Your task to perform on an android device: change timer sound Image 0: 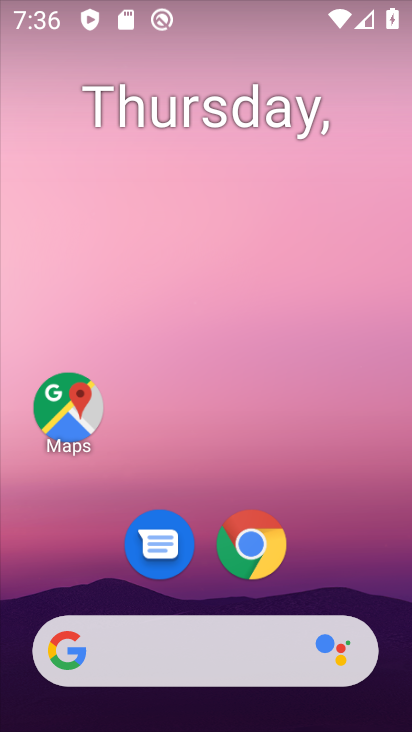
Step 0: drag from (338, 545) to (233, 54)
Your task to perform on an android device: change timer sound Image 1: 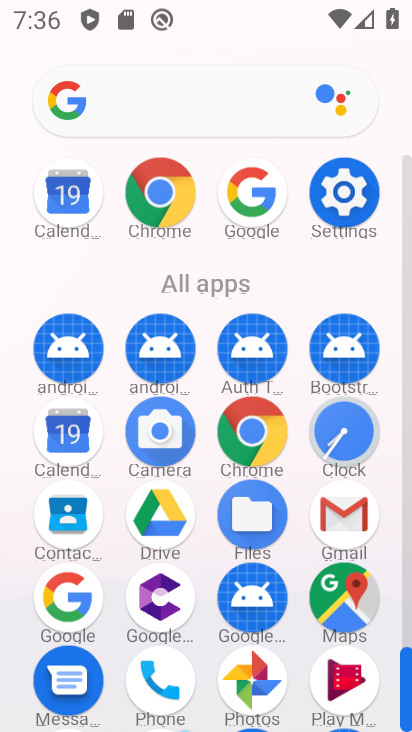
Step 1: click (349, 429)
Your task to perform on an android device: change timer sound Image 2: 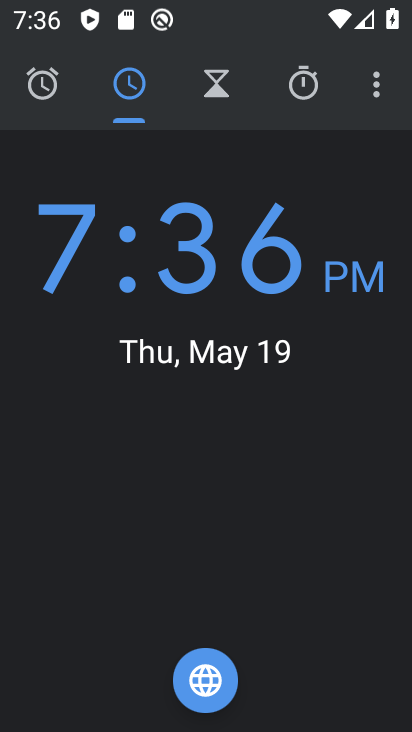
Step 2: click (381, 84)
Your task to perform on an android device: change timer sound Image 3: 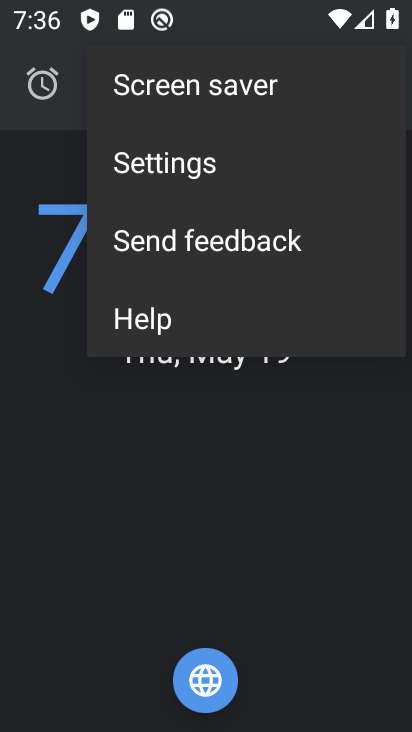
Step 3: click (170, 169)
Your task to perform on an android device: change timer sound Image 4: 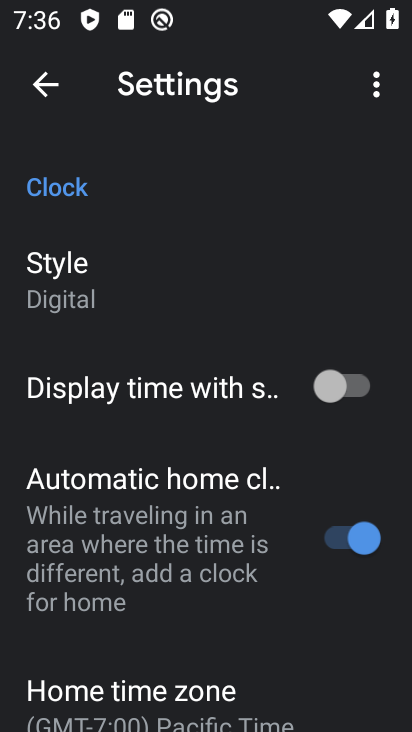
Step 4: drag from (206, 586) to (219, 498)
Your task to perform on an android device: change timer sound Image 5: 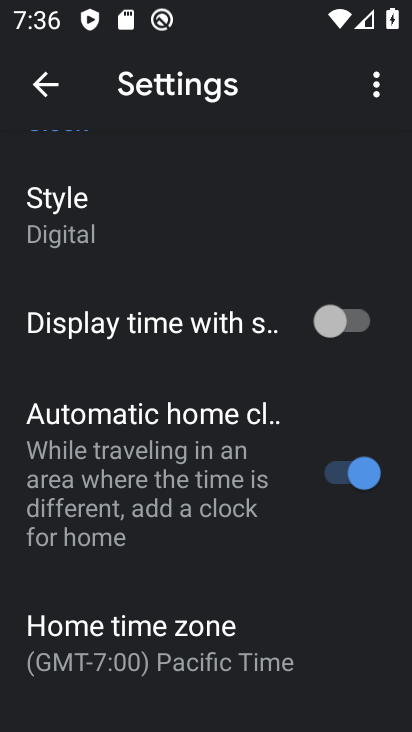
Step 5: drag from (211, 567) to (232, 478)
Your task to perform on an android device: change timer sound Image 6: 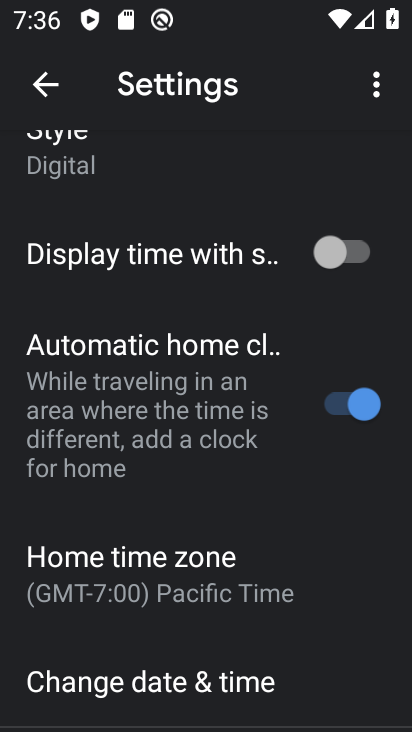
Step 6: drag from (166, 610) to (191, 518)
Your task to perform on an android device: change timer sound Image 7: 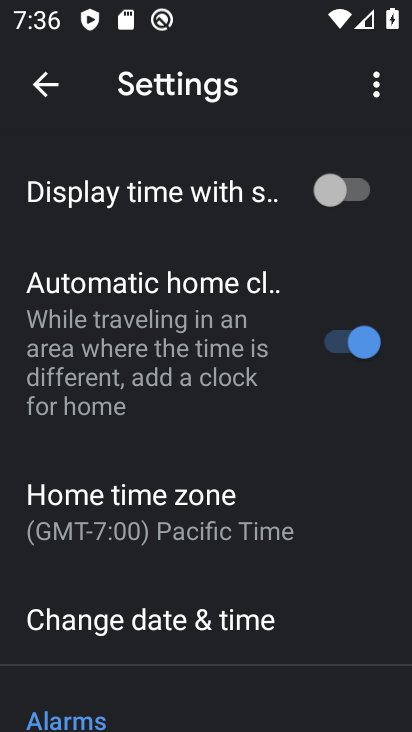
Step 7: drag from (149, 671) to (183, 552)
Your task to perform on an android device: change timer sound Image 8: 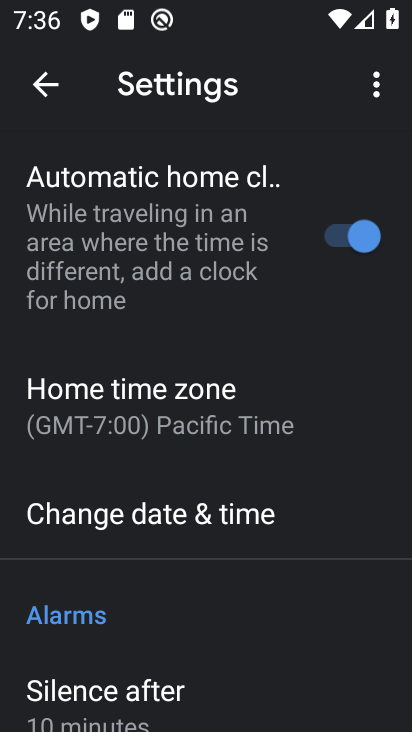
Step 8: drag from (168, 618) to (201, 485)
Your task to perform on an android device: change timer sound Image 9: 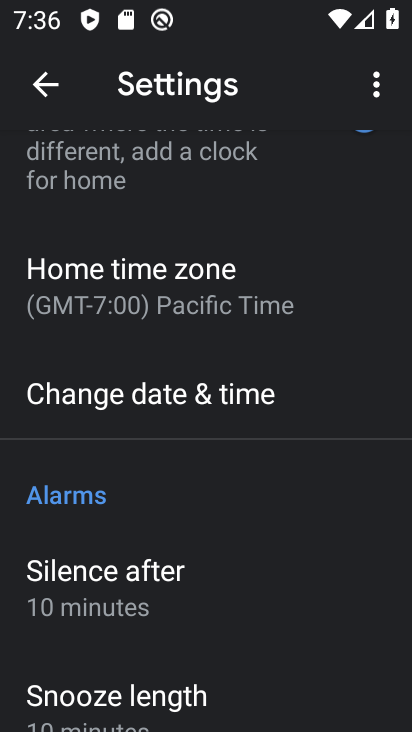
Step 9: drag from (176, 626) to (214, 512)
Your task to perform on an android device: change timer sound Image 10: 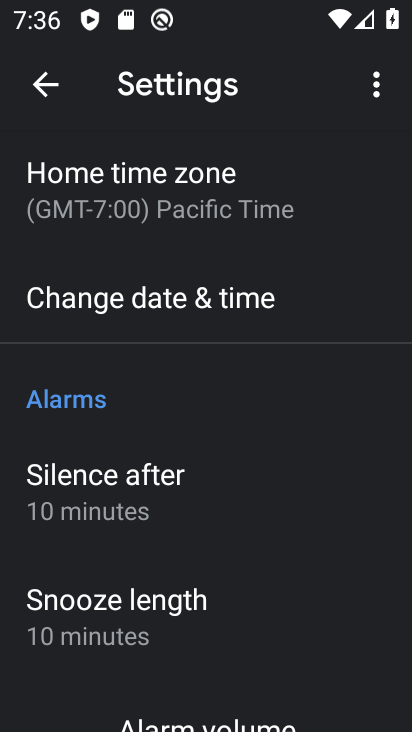
Step 10: drag from (179, 656) to (221, 503)
Your task to perform on an android device: change timer sound Image 11: 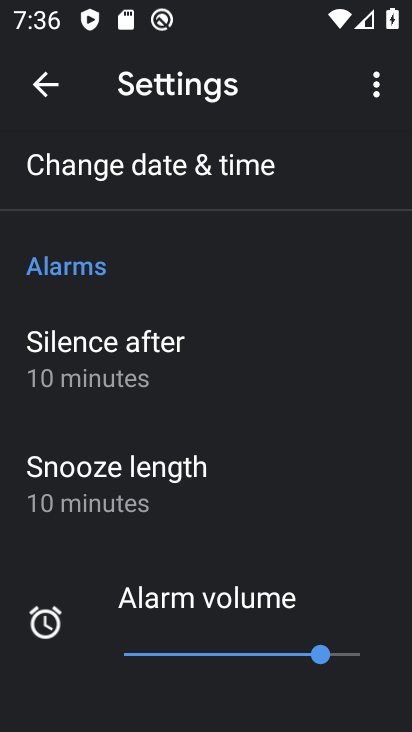
Step 11: drag from (89, 672) to (190, 499)
Your task to perform on an android device: change timer sound Image 12: 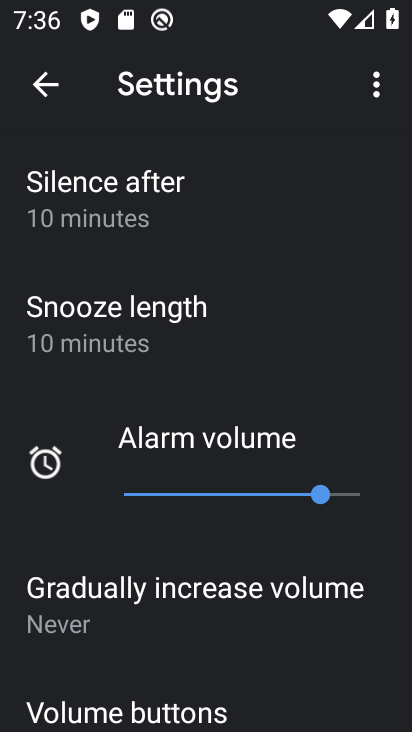
Step 12: drag from (161, 635) to (226, 524)
Your task to perform on an android device: change timer sound Image 13: 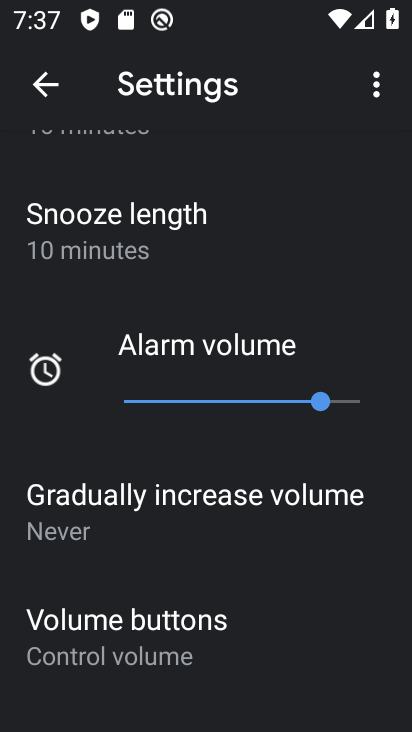
Step 13: drag from (175, 698) to (227, 565)
Your task to perform on an android device: change timer sound Image 14: 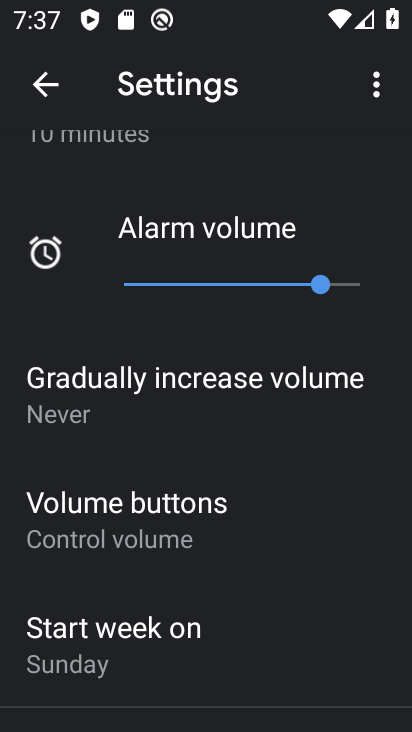
Step 14: drag from (202, 580) to (286, 464)
Your task to perform on an android device: change timer sound Image 15: 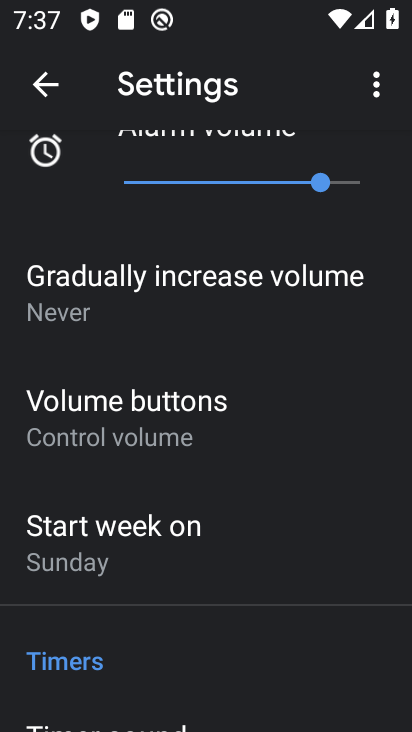
Step 15: drag from (170, 634) to (239, 517)
Your task to perform on an android device: change timer sound Image 16: 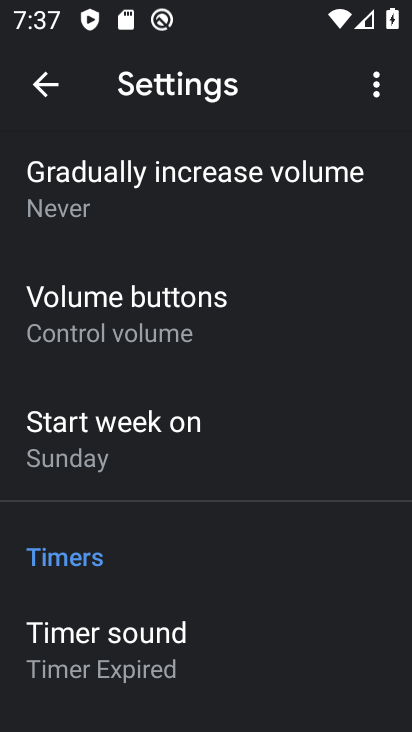
Step 16: drag from (157, 602) to (222, 501)
Your task to perform on an android device: change timer sound Image 17: 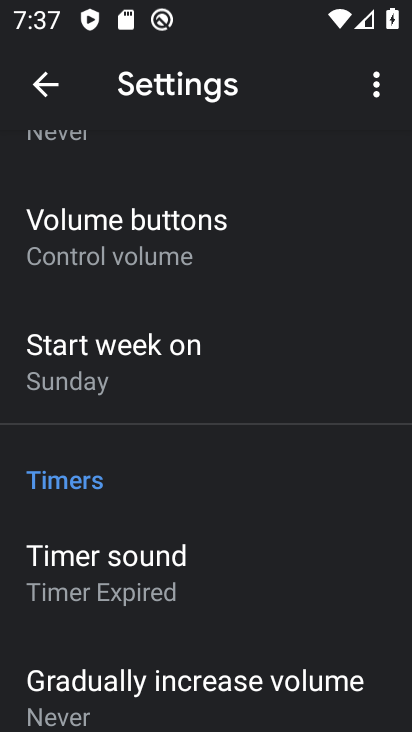
Step 17: click (154, 561)
Your task to perform on an android device: change timer sound Image 18: 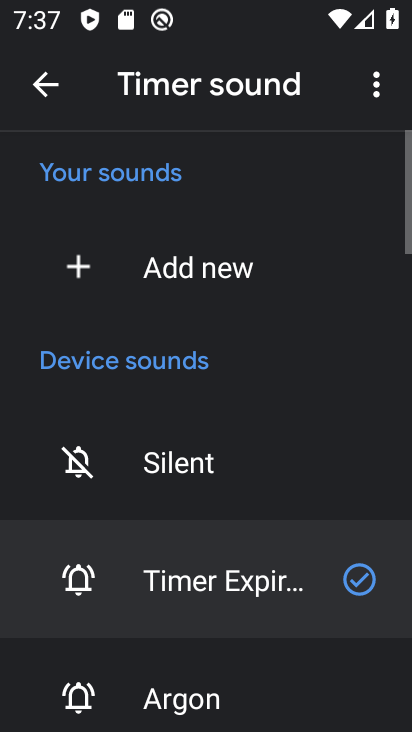
Step 18: drag from (213, 507) to (302, 380)
Your task to perform on an android device: change timer sound Image 19: 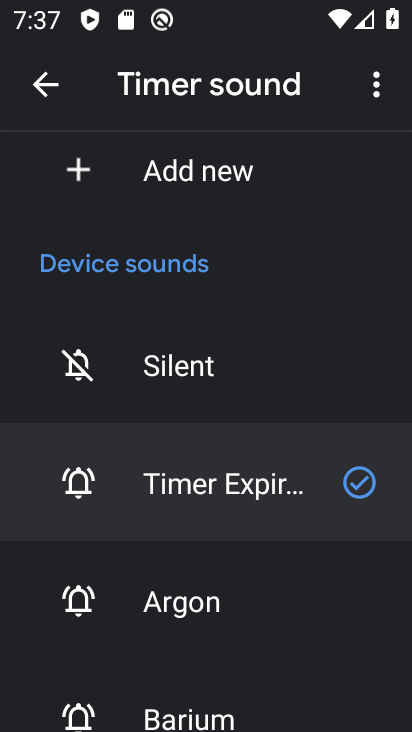
Step 19: drag from (202, 577) to (270, 427)
Your task to perform on an android device: change timer sound Image 20: 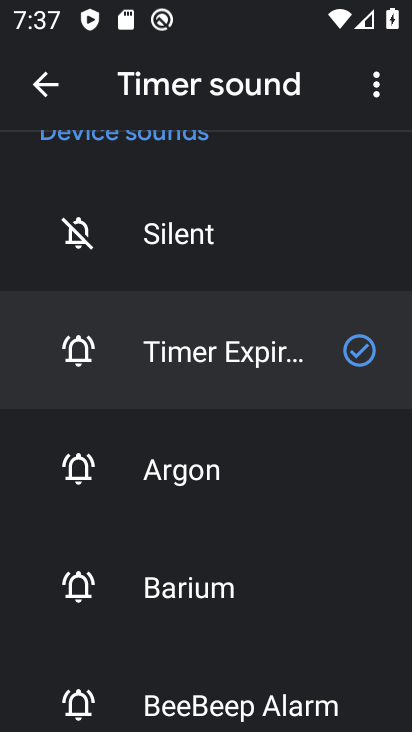
Step 20: drag from (185, 629) to (265, 488)
Your task to perform on an android device: change timer sound Image 21: 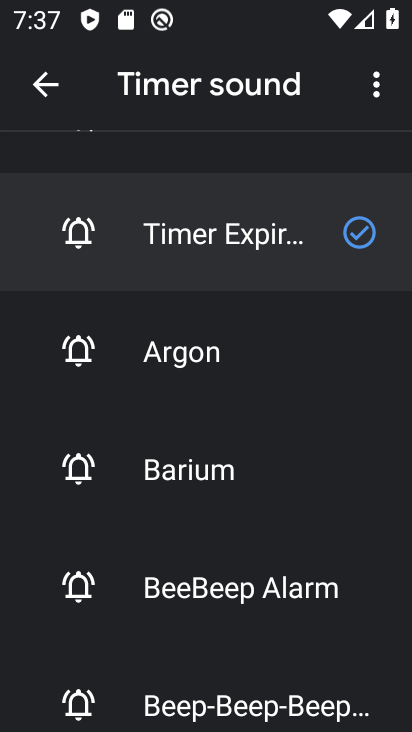
Step 21: drag from (207, 645) to (311, 484)
Your task to perform on an android device: change timer sound Image 22: 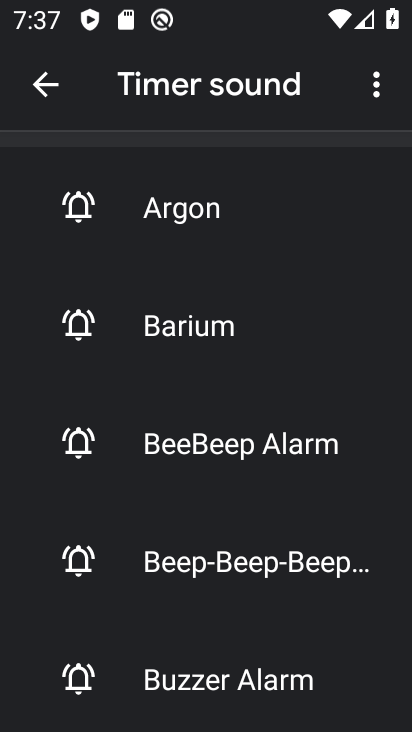
Step 22: drag from (215, 625) to (318, 472)
Your task to perform on an android device: change timer sound Image 23: 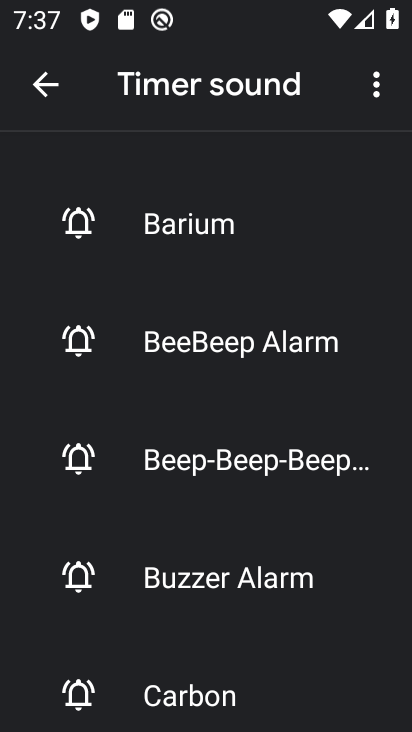
Step 23: drag from (217, 675) to (314, 517)
Your task to perform on an android device: change timer sound Image 24: 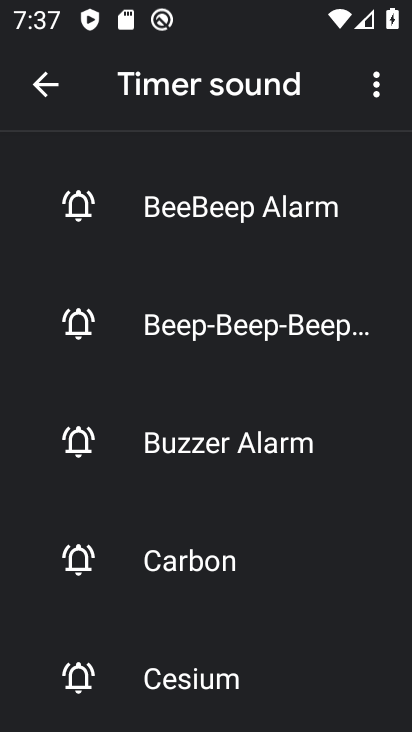
Step 24: click (186, 577)
Your task to perform on an android device: change timer sound Image 25: 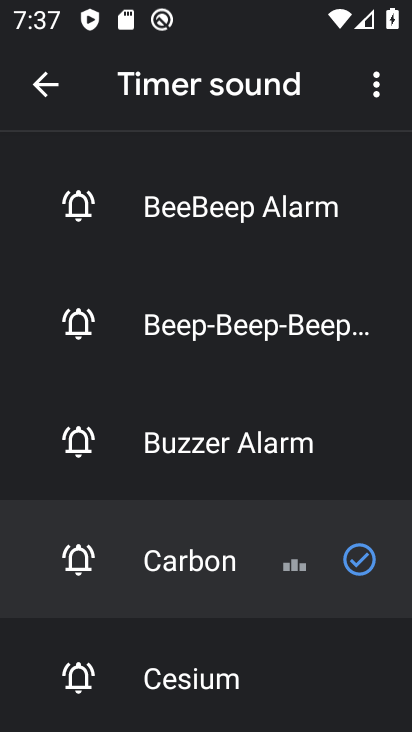
Step 25: task complete